Your task to perform on an android device: install app "Chime – Mobile Banking" Image 0: 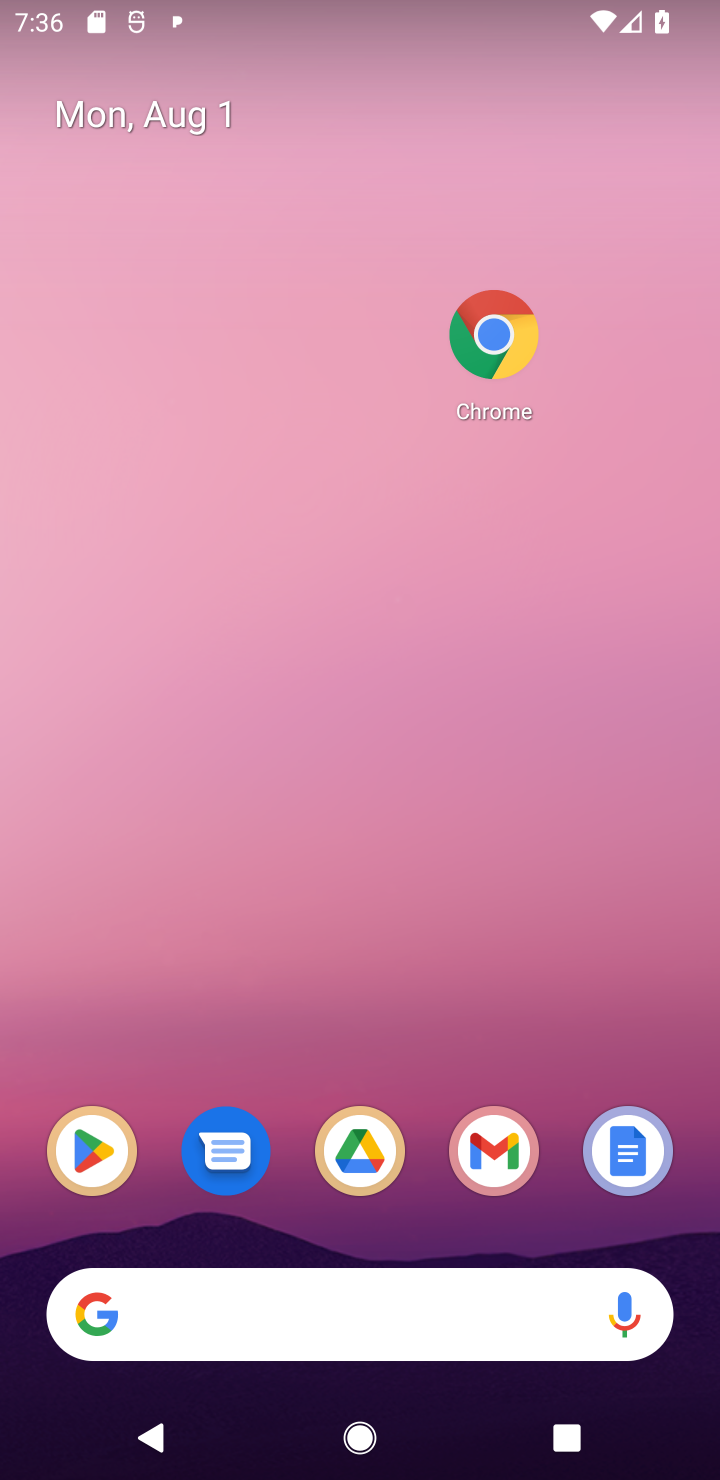
Step 0: click (81, 1152)
Your task to perform on an android device: install app "Chime – Mobile Banking" Image 1: 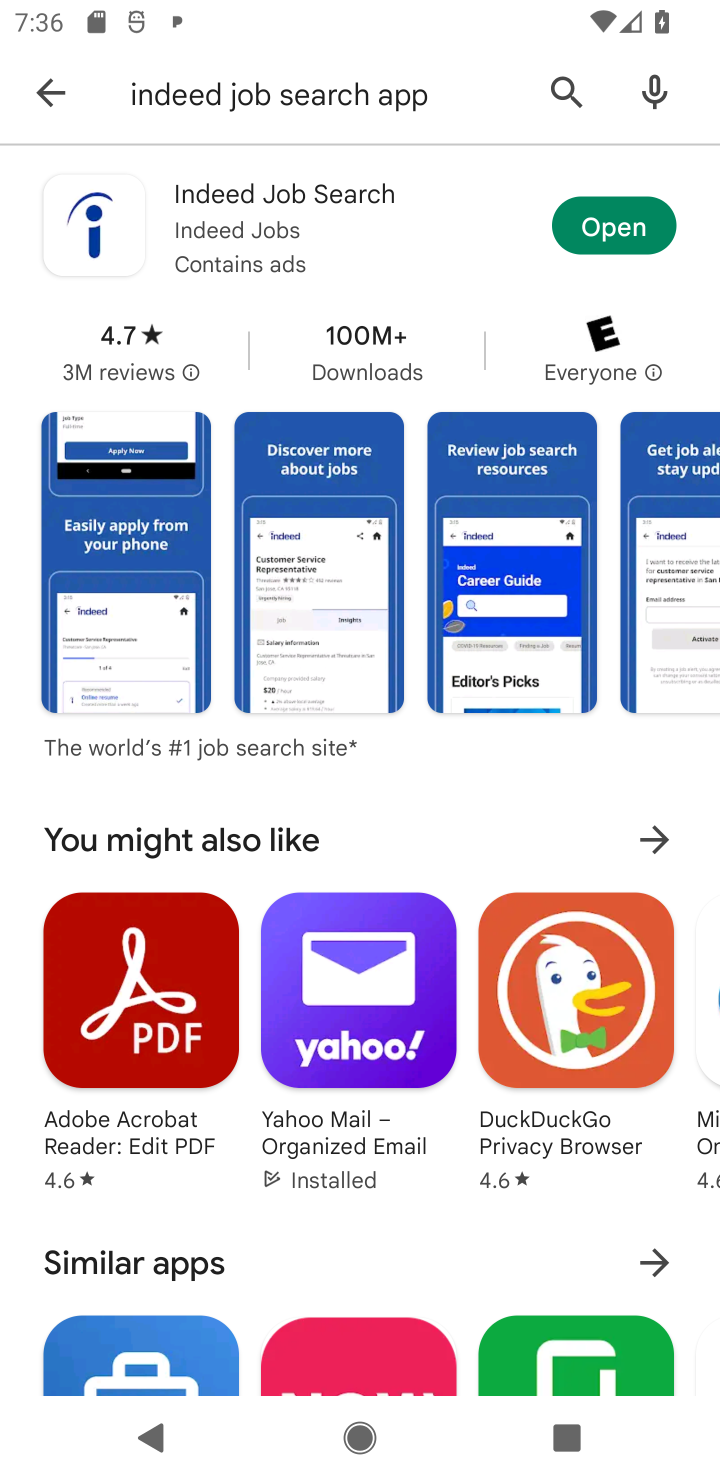
Step 1: click (556, 96)
Your task to perform on an android device: install app "Chime – Mobile Banking" Image 2: 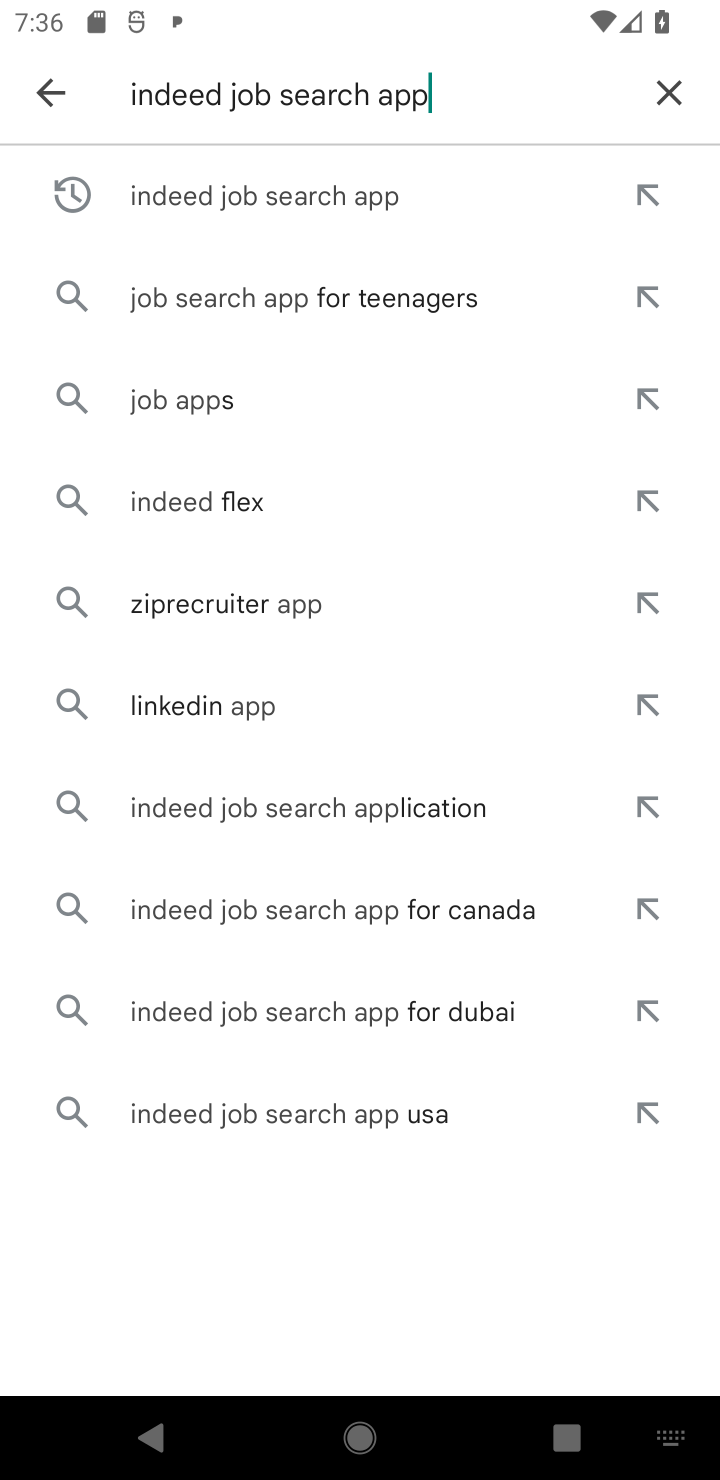
Step 2: click (672, 100)
Your task to perform on an android device: install app "Chime – Mobile Banking" Image 3: 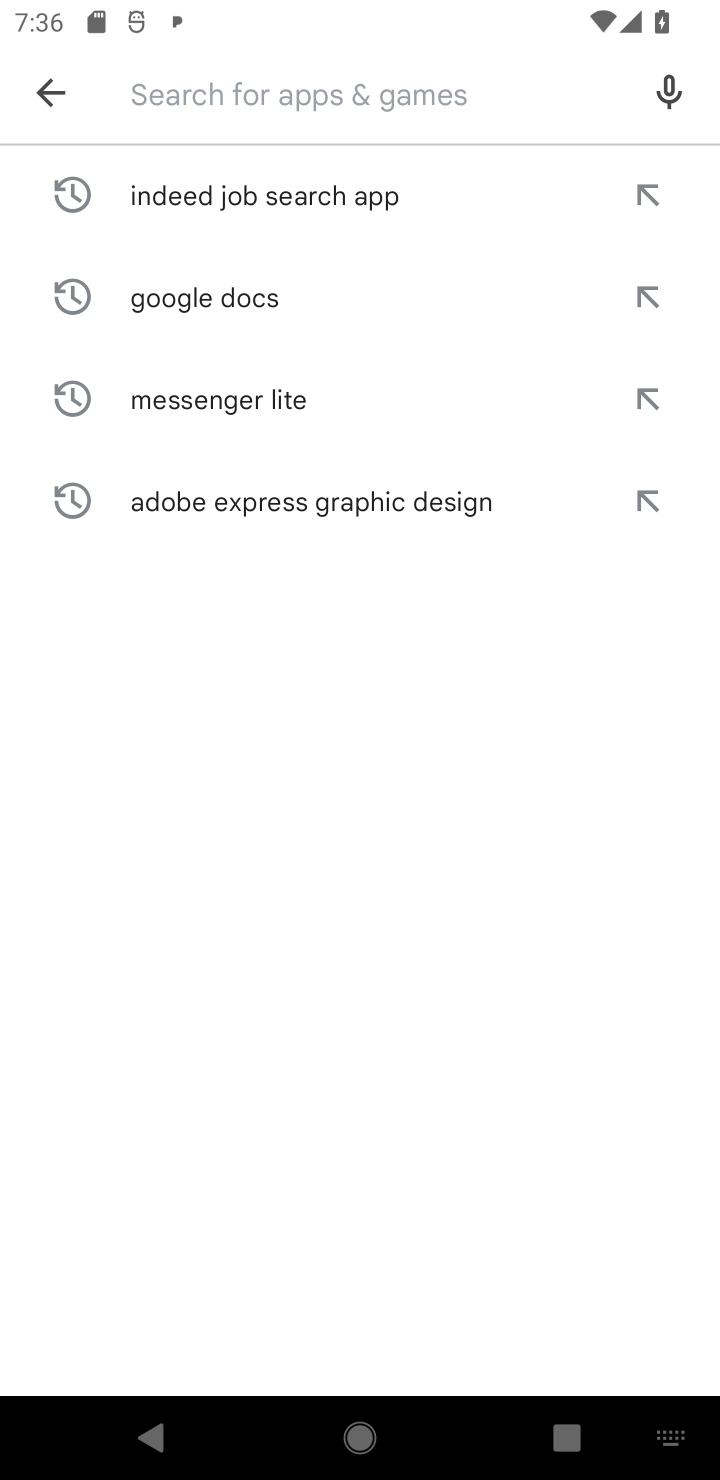
Step 3: type "Chime Mobile Banking"
Your task to perform on an android device: install app "Chime – Mobile Banking" Image 4: 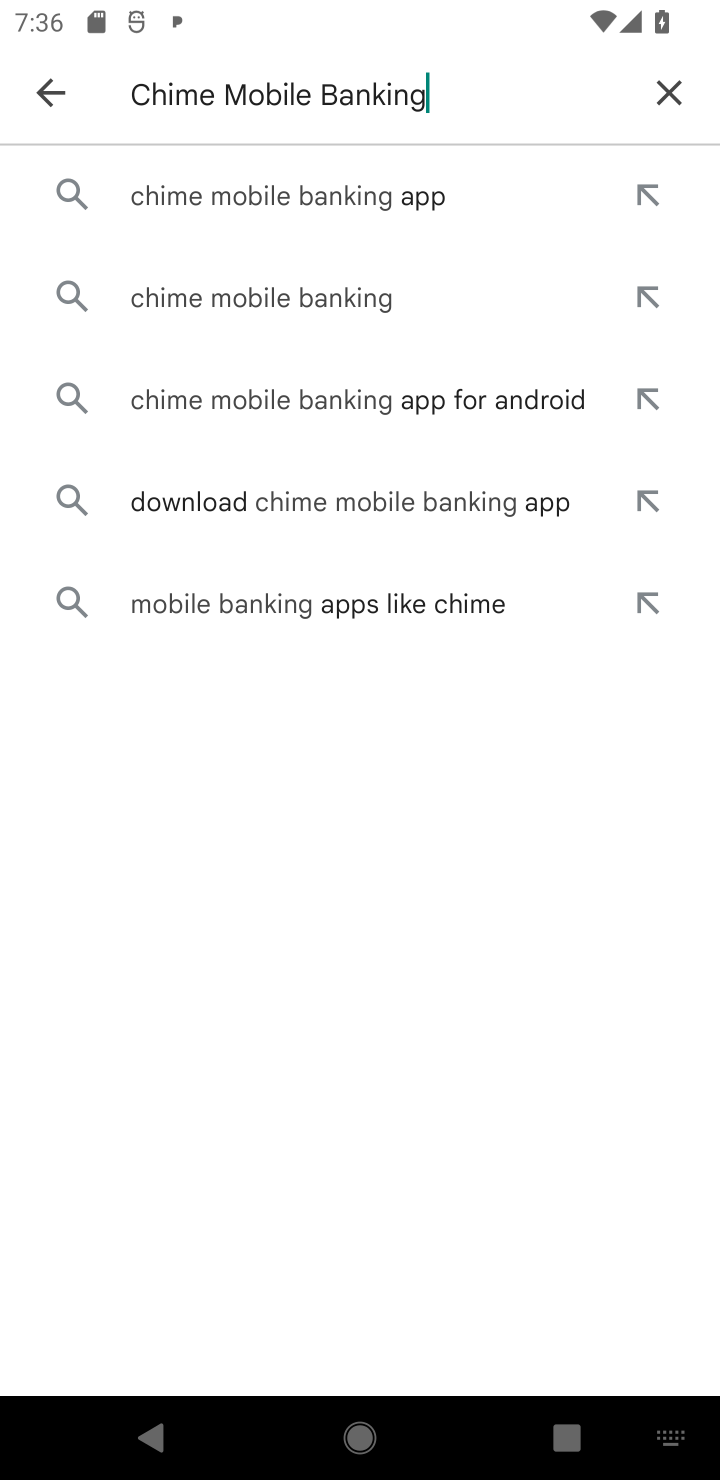
Step 4: click (355, 208)
Your task to perform on an android device: install app "Chime – Mobile Banking" Image 5: 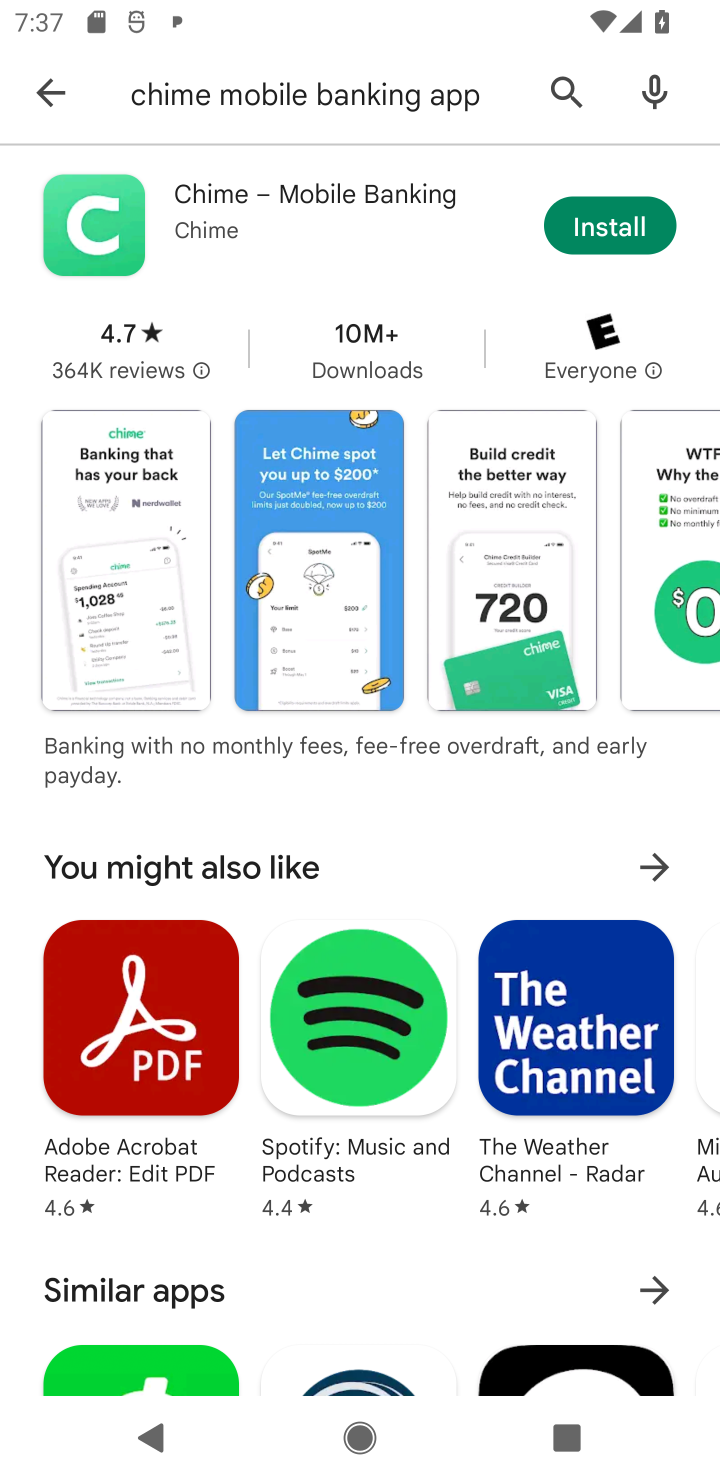
Step 5: click (618, 230)
Your task to perform on an android device: install app "Chime – Mobile Banking" Image 6: 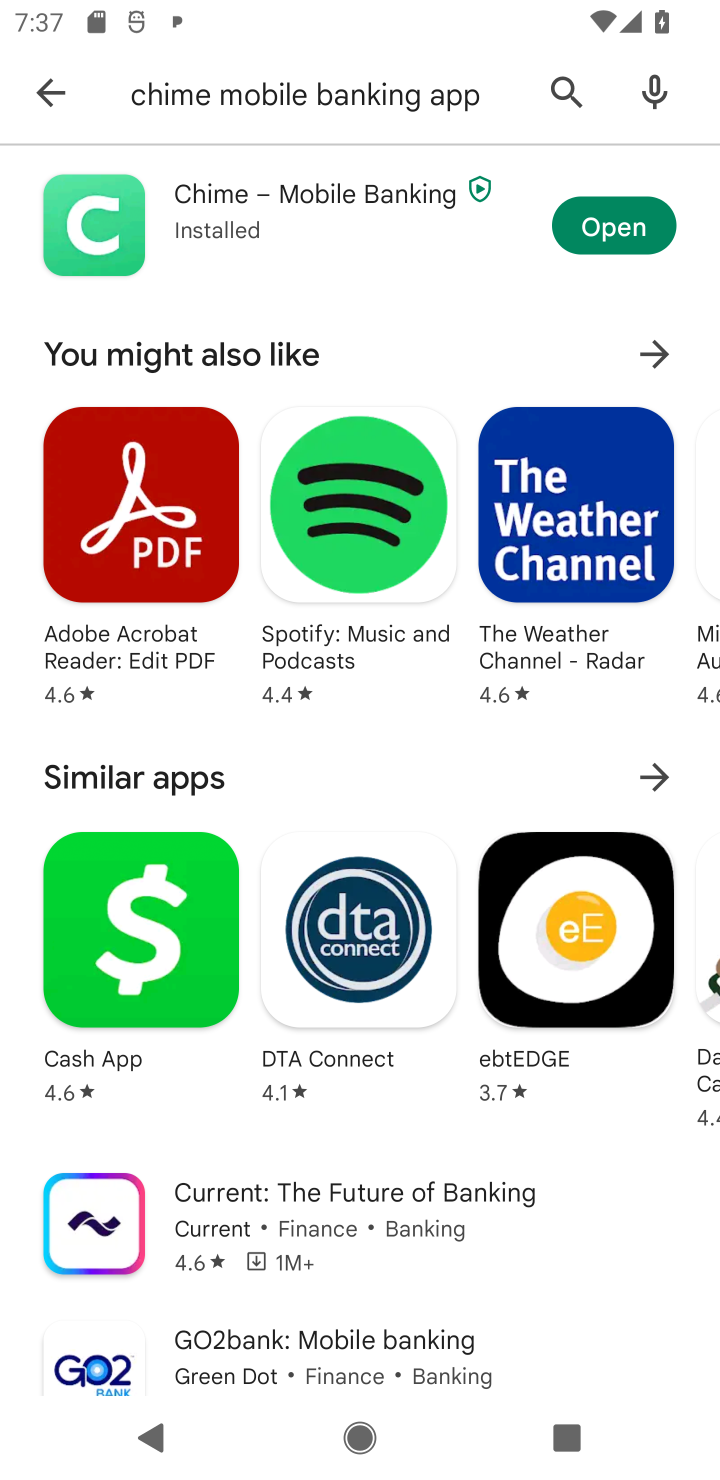
Step 6: task complete